Your task to perform on an android device: find which apps use the phone's location Image 0: 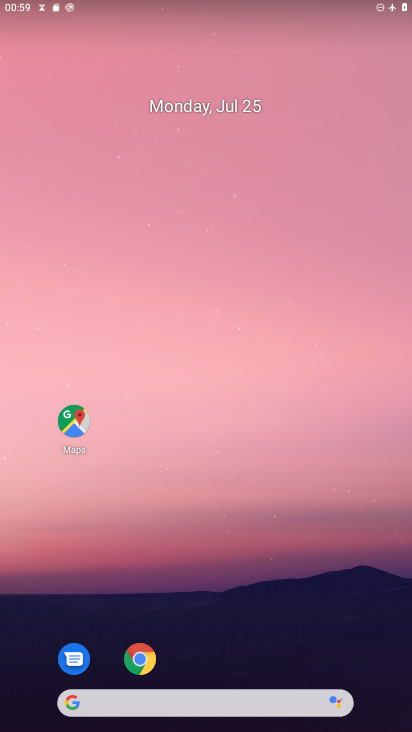
Step 0: drag from (216, 641) to (195, 192)
Your task to perform on an android device: find which apps use the phone's location Image 1: 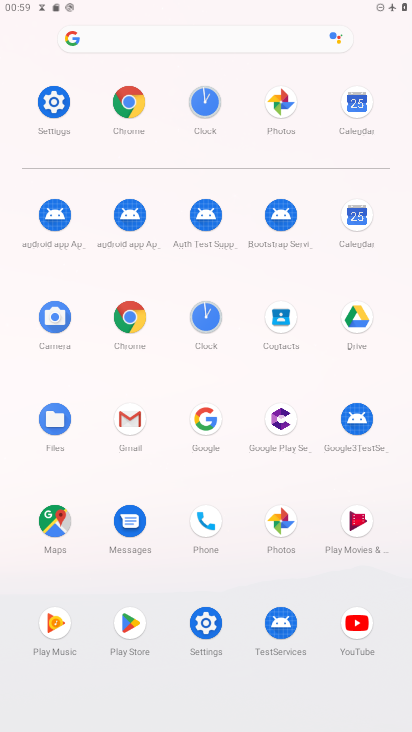
Step 1: click (56, 101)
Your task to perform on an android device: find which apps use the phone's location Image 2: 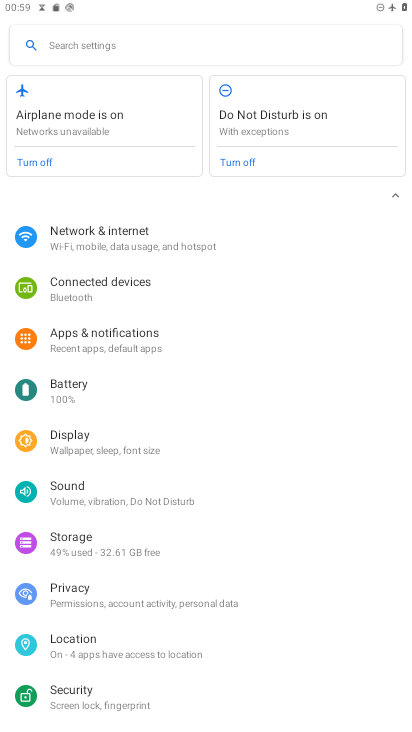
Step 2: click (95, 654)
Your task to perform on an android device: find which apps use the phone's location Image 3: 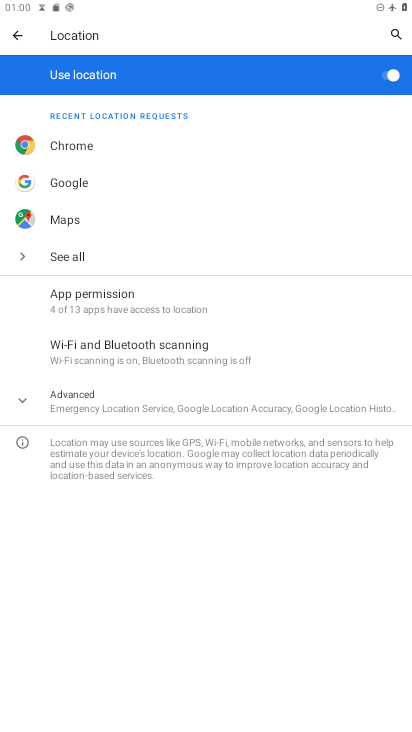
Step 3: task complete